Your task to perform on an android device: toggle notifications settings in the gmail app Image 0: 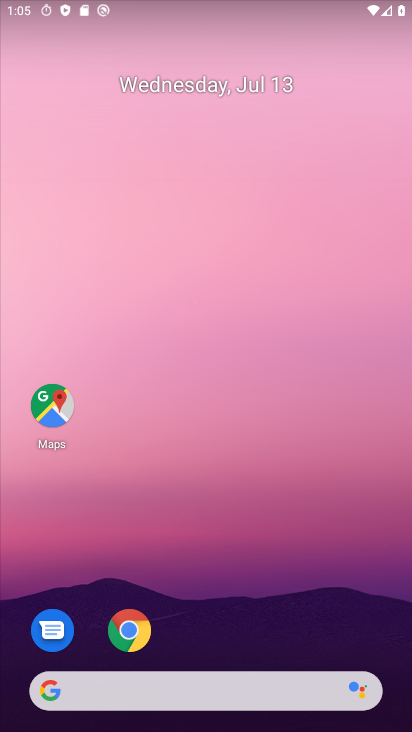
Step 0: drag from (341, 601) to (383, 127)
Your task to perform on an android device: toggle notifications settings in the gmail app Image 1: 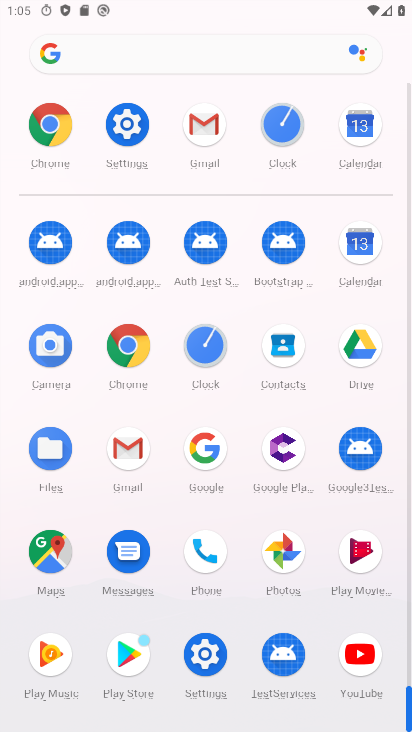
Step 1: click (201, 123)
Your task to perform on an android device: toggle notifications settings in the gmail app Image 2: 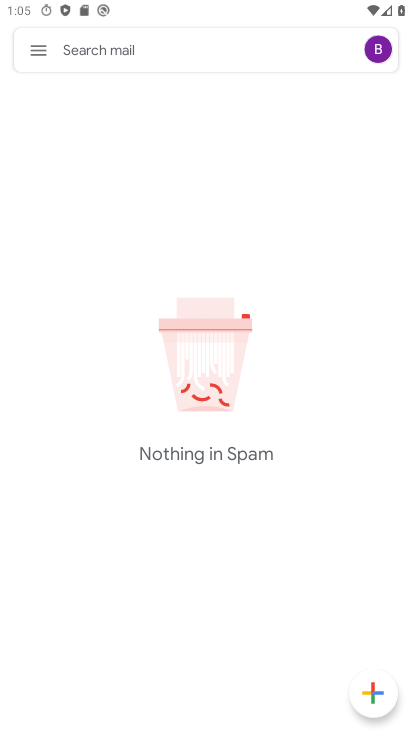
Step 2: click (39, 51)
Your task to perform on an android device: toggle notifications settings in the gmail app Image 3: 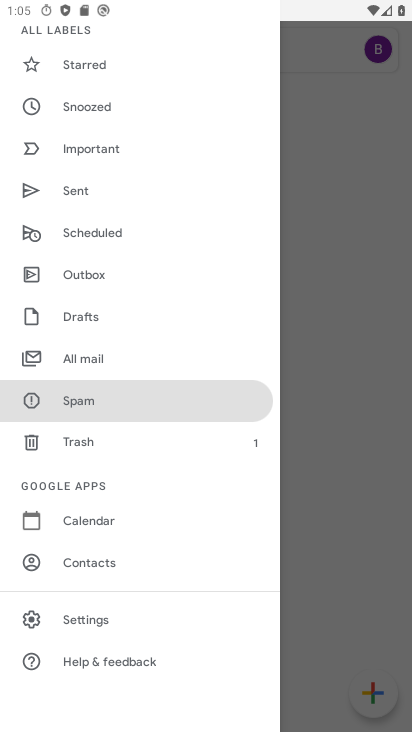
Step 3: drag from (95, 126) to (165, 436)
Your task to perform on an android device: toggle notifications settings in the gmail app Image 4: 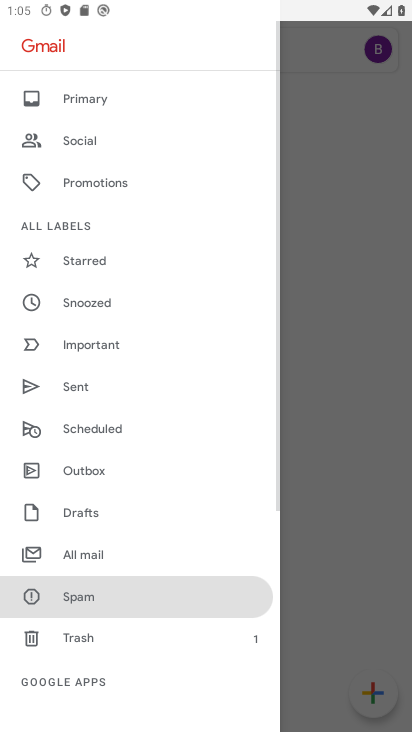
Step 4: drag from (181, 584) to (199, 201)
Your task to perform on an android device: toggle notifications settings in the gmail app Image 5: 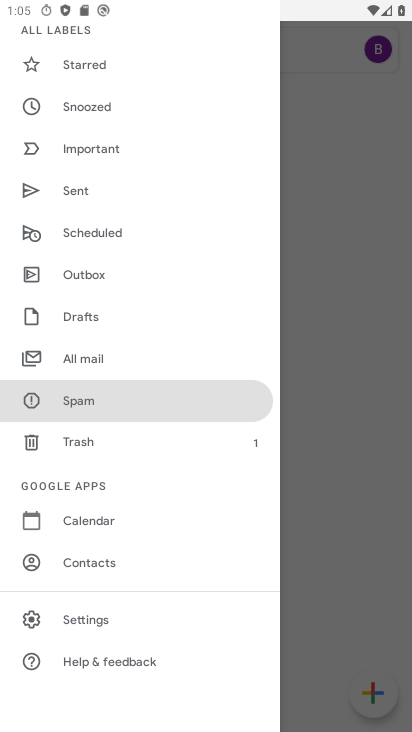
Step 5: click (92, 624)
Your task to perform on an android device: toggle notifications settings in the gmail app Image 6: 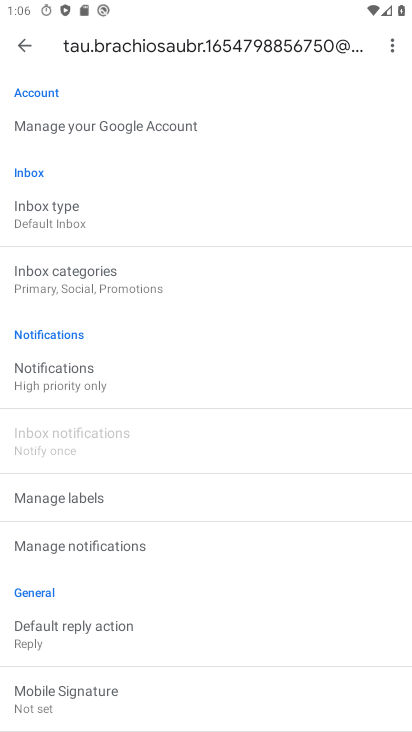
Step 6: click (55, 369)
Your task to perform on an android device: toggle notifications settings in the gmail app Image 7: 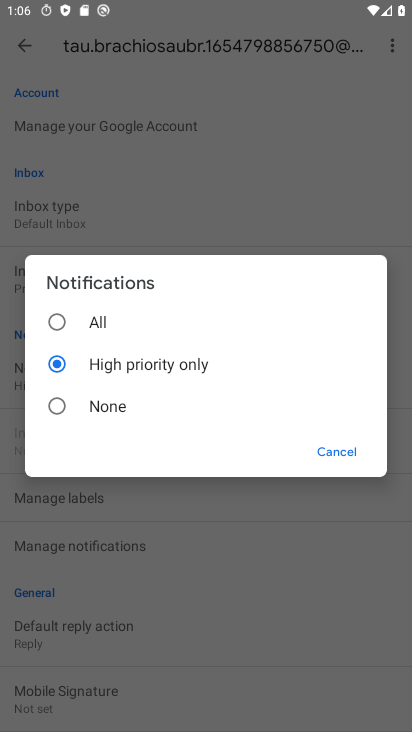
Step 7: click (51, 320)
Your task to perform on an android device: toggle notifications settings in the gmail app Image 8: 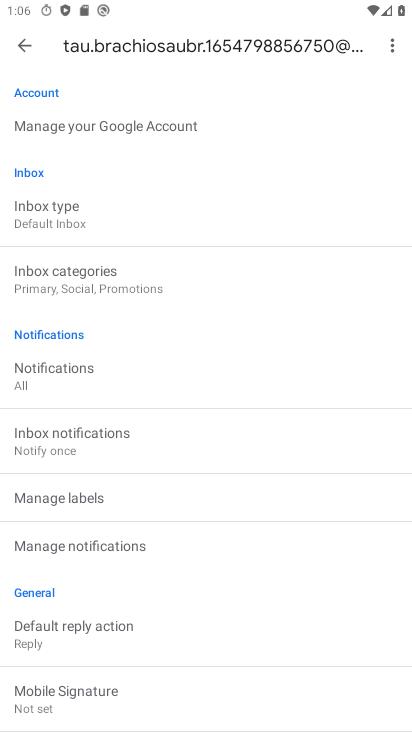
Step 8: task complete